Your task to perform on an android device: find snoozed emails in the gmail app Image 0: 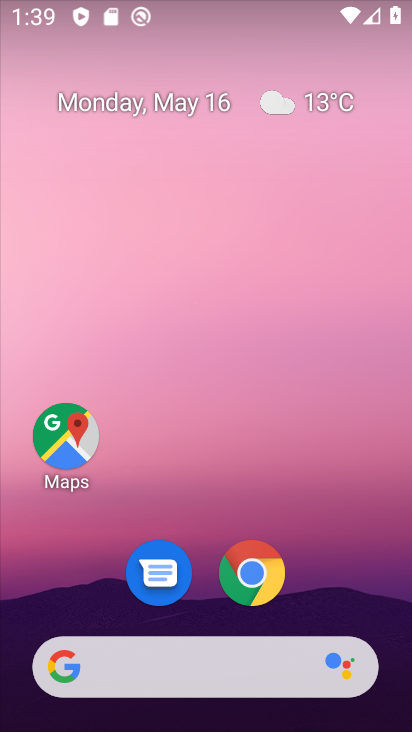
Step 0: drag from (250, 679) to (239, 80)
Your task to perform on an android device: find snoozed emails in the gmail app Image 1: 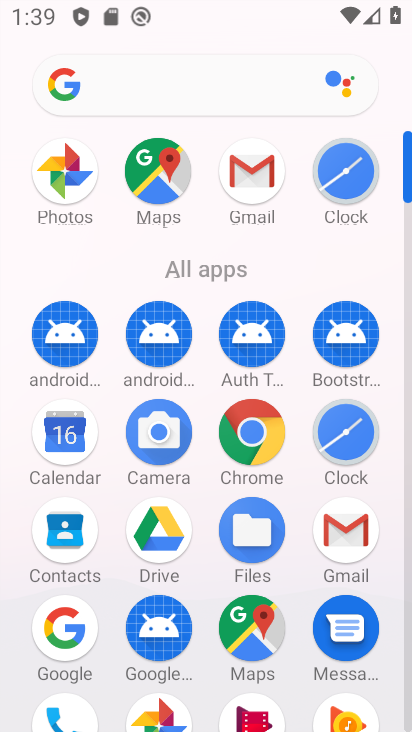
Step 1: click (328, 553)
Your task to perform on an android device: find snoozed emails in the gmail app Image 2: 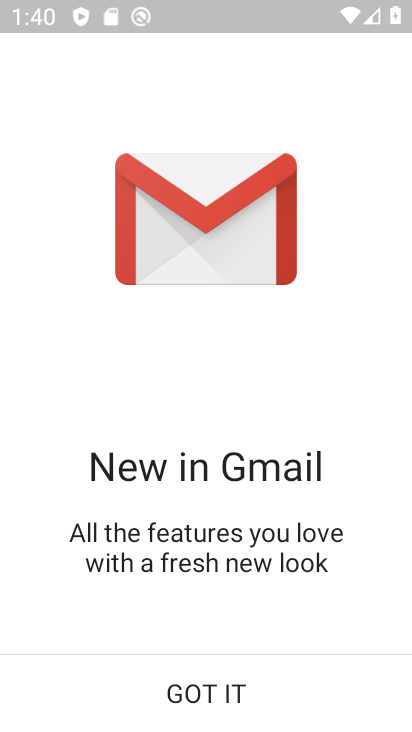
Step 2: click (197, 696)
Your task to perform on an android device: find snoozed emails in the gmail app Image 3: 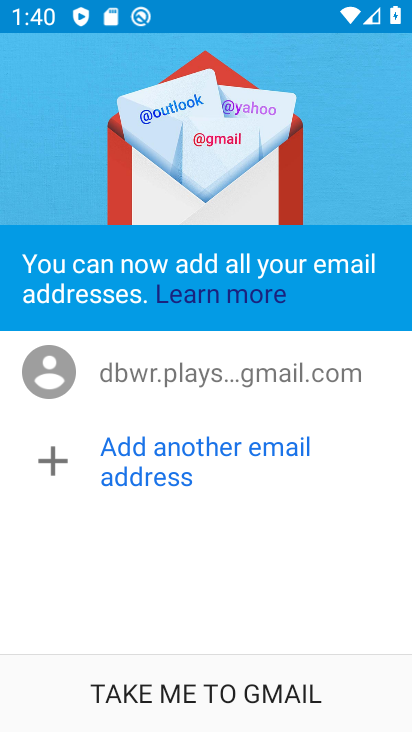
Step 3: click (203, 699)
Your task to perform on an android device: find snoozed emails in the gmail app Image 4: 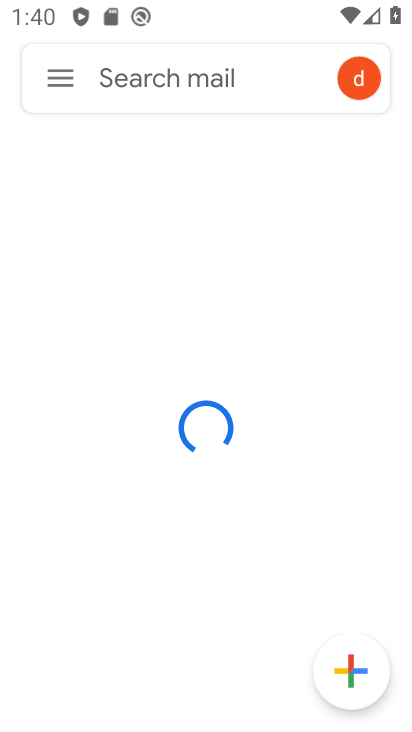
Step 4: click (57, 72)
Your task to perform on an android device: find snoozed emails in the gmail app Image 5: 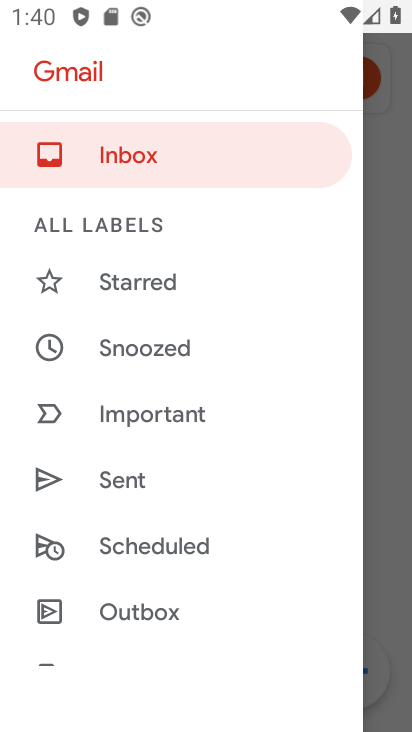
Step 5: click (129, 357)
Your task to perform on an android device: find snoozed emails in the gmail app Image 6: 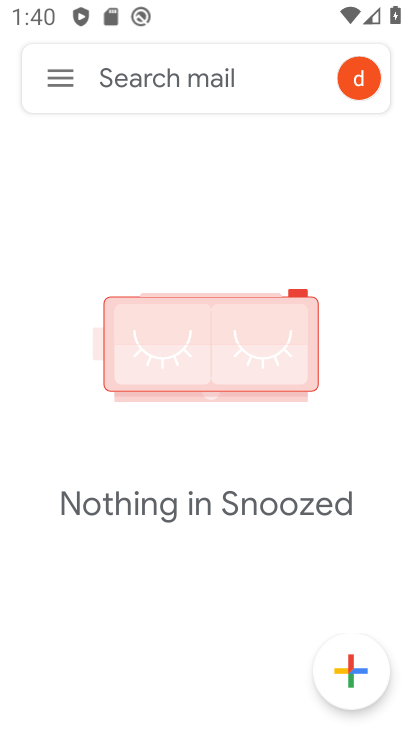
Step 6: task complete